Your task to perform on an android device: turn off airplane mode Image 0: 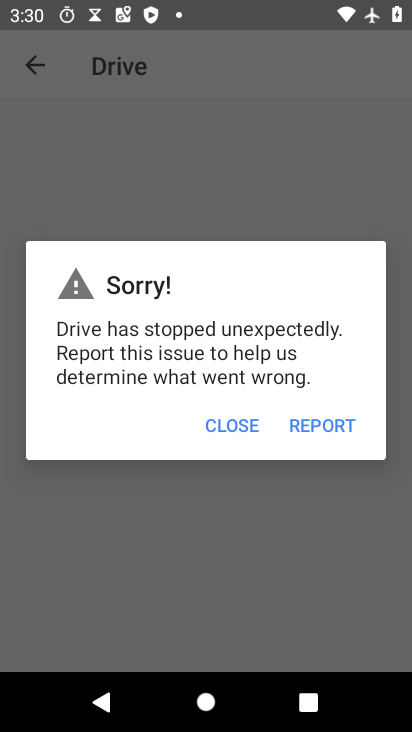
Step 0: press home button
Your task to perform on an android device: turn off airplane mode Image 1: 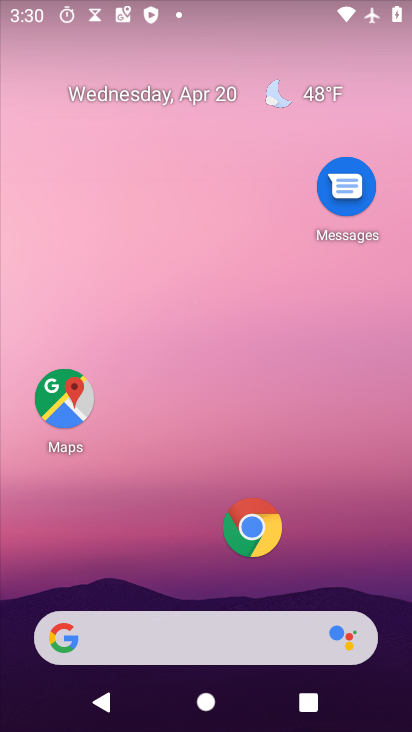
Step 1: drag from (134, 642) to (243, 58)
Your task to perform on an android device: turn off airplane mode Image 2: 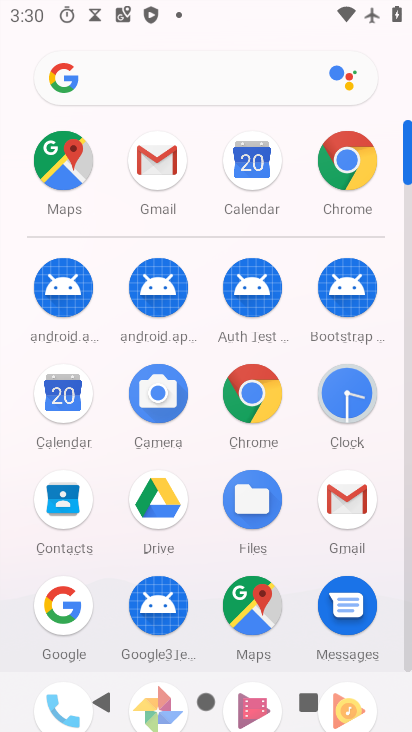
Step 2: drag from (211, 562) to (352, 40)
Your task to perform on an android device: turn off airplane mode Image 3: 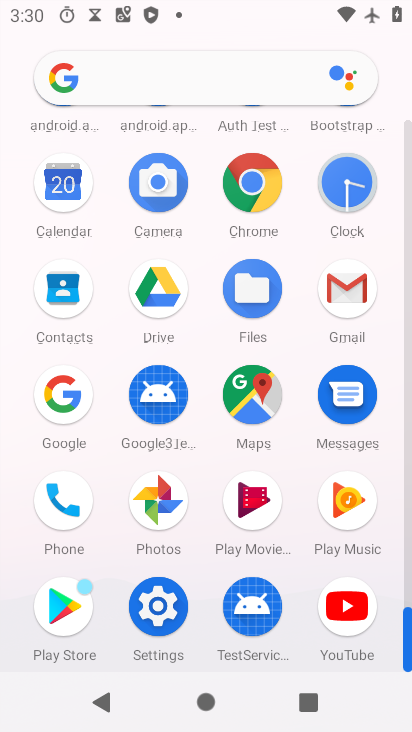
Step 3: click (166, 583)
Your task to perform on an android device: turn off airplane mode Image 4: 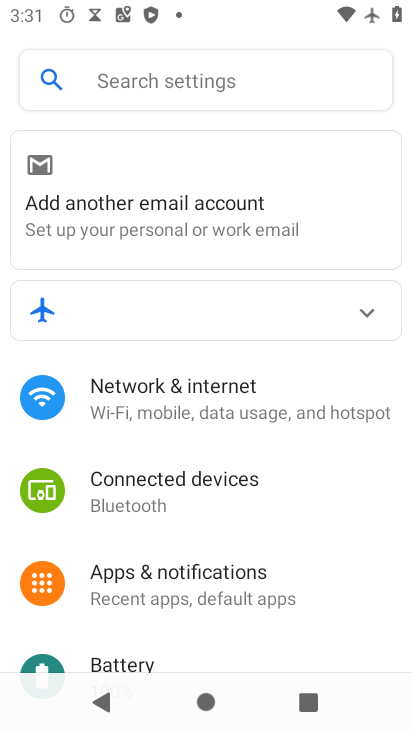
Step 4: click (188, 403)
Your task to perform on an android device: turn off airplane mode Image 5: 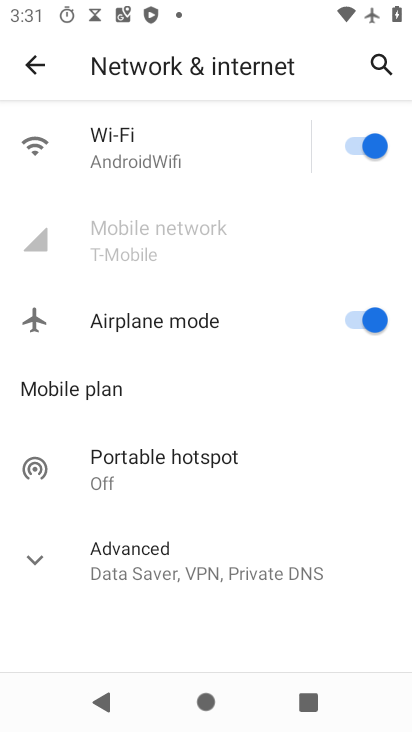
Step 5: click (355, 319)
Your task to perform on an android device: turn off airplane mode Image 6: 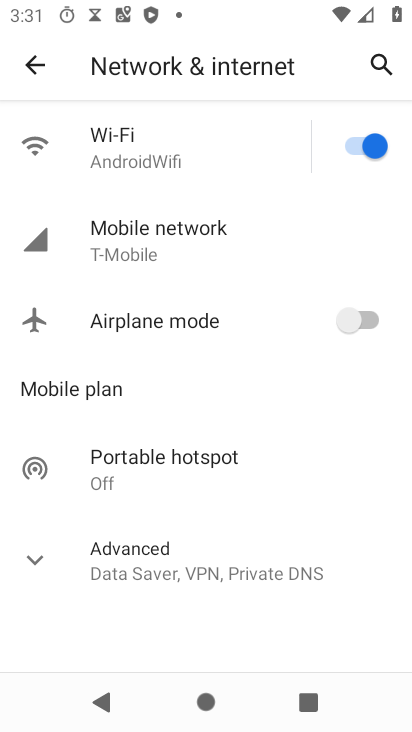
Step 6: task complete